Your task to perform on an android device: change alarm snooze length Image 0: 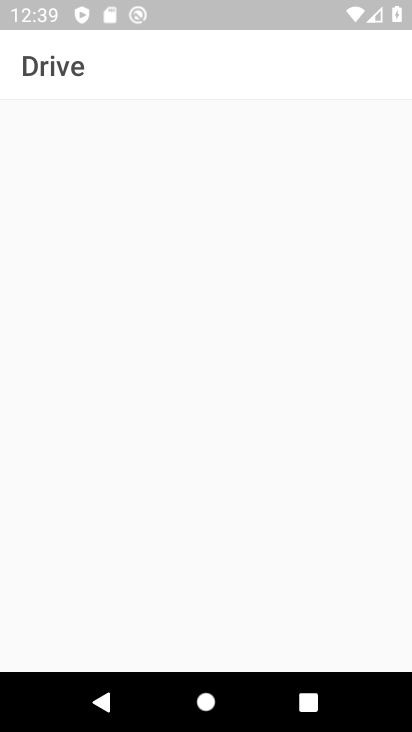
Step 0: press home button
Your task to perform on an android device: change alarm snooze length Image 1: 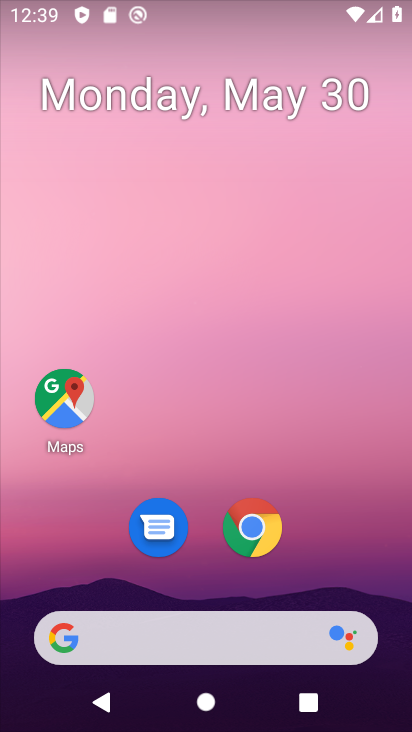
Step 1: drag from (207, 594) to (222, 18)
Your task to perform on an android device: change alarm snooze length Image 2: 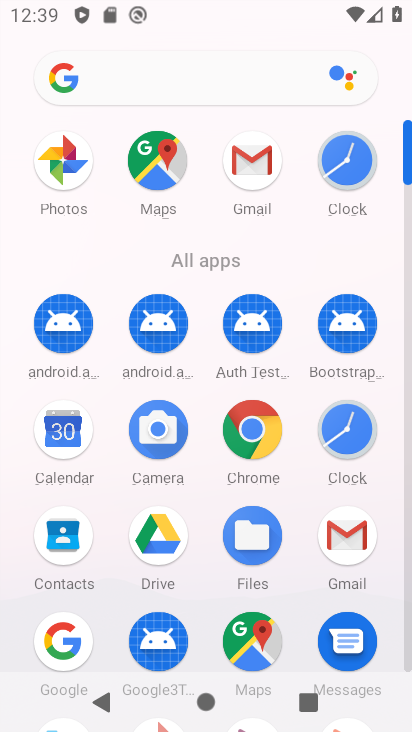
Step 2: click (338, 182)
Your task to perform on an android device: change alarm snooze length Image 3: 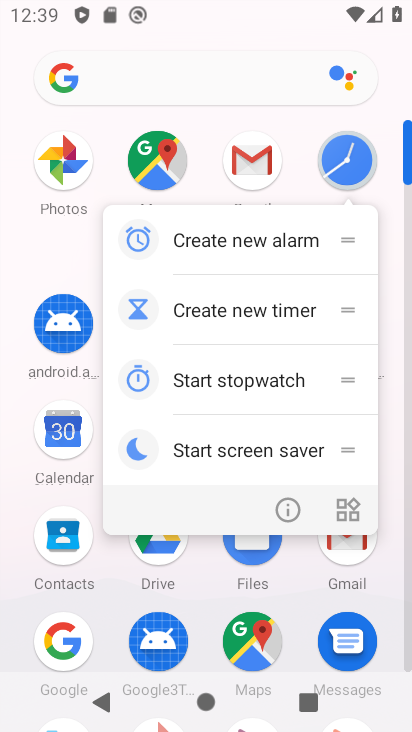
Step 3: click (295, 525)
Your task to perform on an android device: change alarm snooze length Image 4: 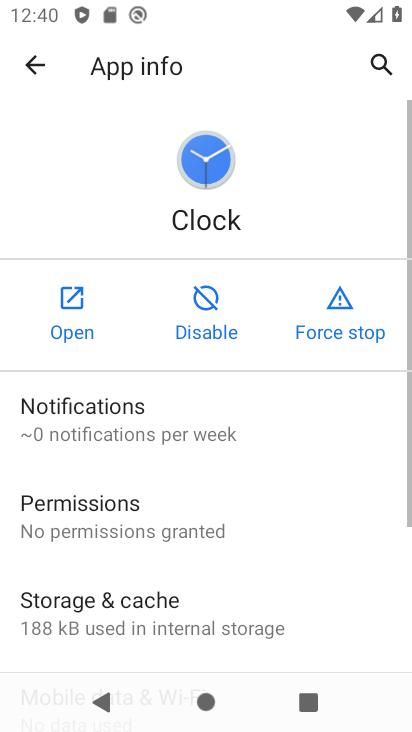
Step 4: click (71, 306)
Your task to perform on an android device: change alarm snooze length Image 5: 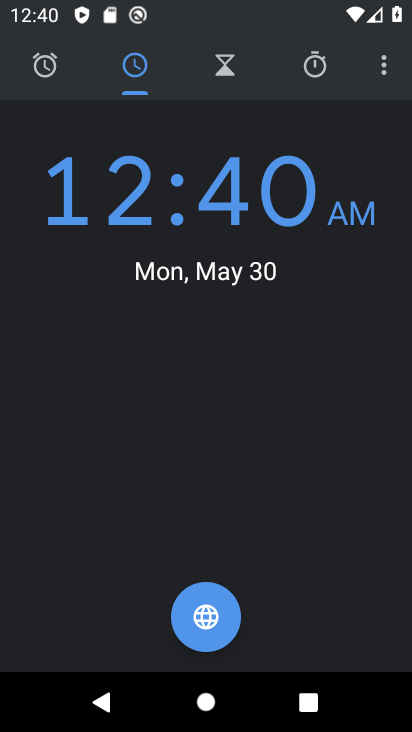
Step 5: click (373, 67)
Your task to perform on an android device: change alarm snooze length Image 6: 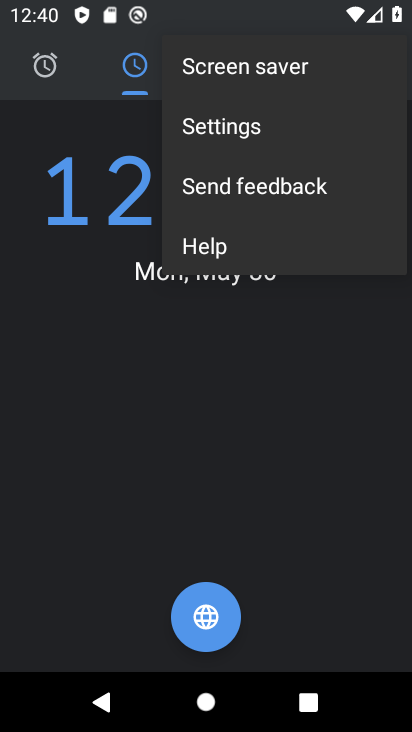
Step 6: click (264, 124)
Your task to perform on an android device: change alarm snooze length Image 7: 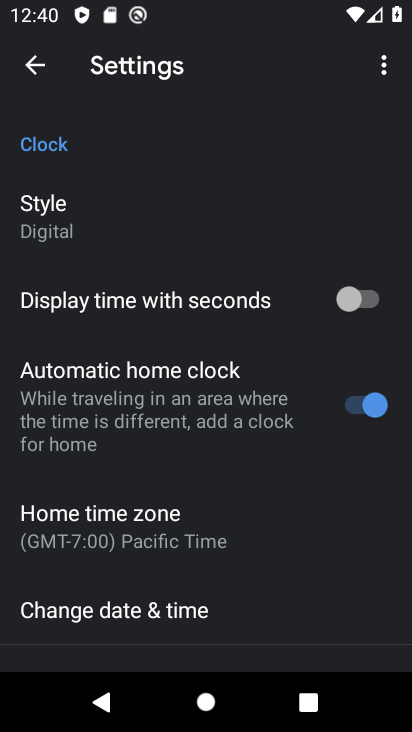
Step 7: drag from (201, 592) to (324, 16)
Your task to perform on an android device: change alarm snooze length Image 8: 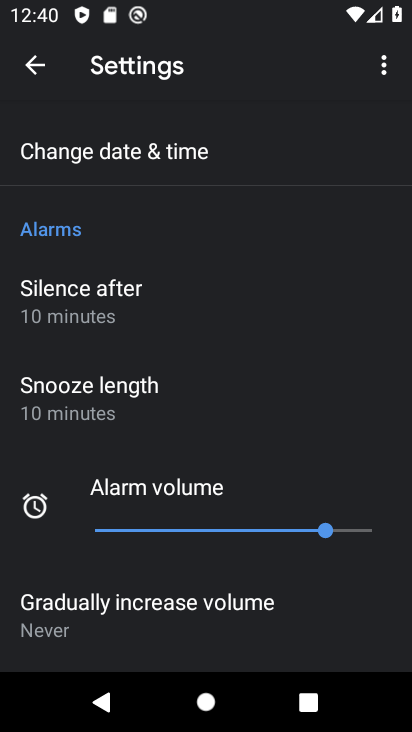
Step 8: drag from (175, 461) to (272, 157)
Your task to perform on an android device: change alarm snooze length Image 9: 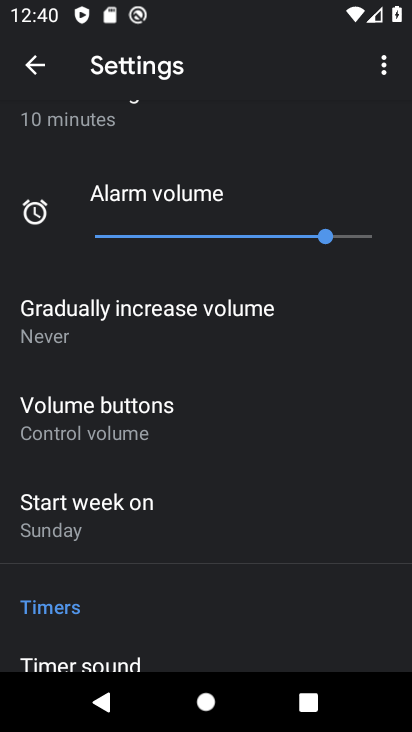
Step 9: drag from (173, 542) to (293, 190)
Your task to perform on an android device: change alarm snooze length Image 10: 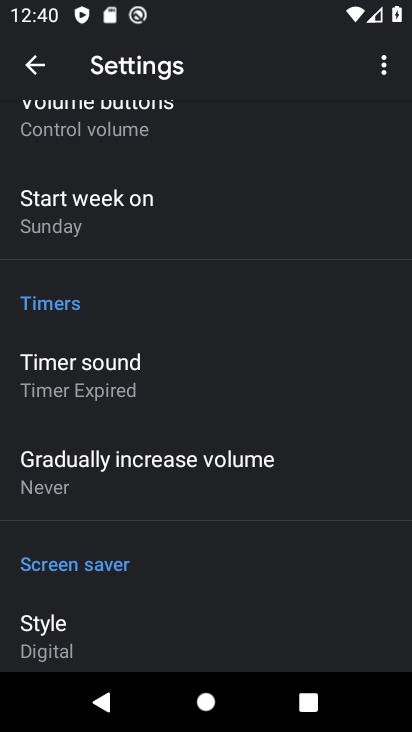
Step 10: drag from (149, 509) to (218, 145)
Your task to perform on an android device: change alarm snooze length Image 11: 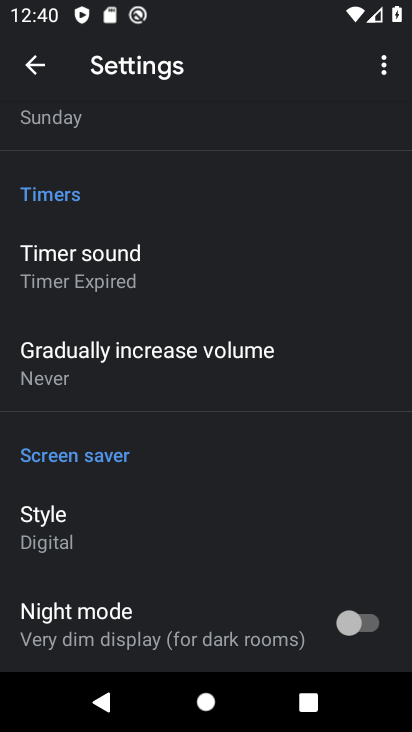
Step 11: drag from (172, 317) to (217, 666)
Your task to perform on an android device: change alarm snooze length Image 12: 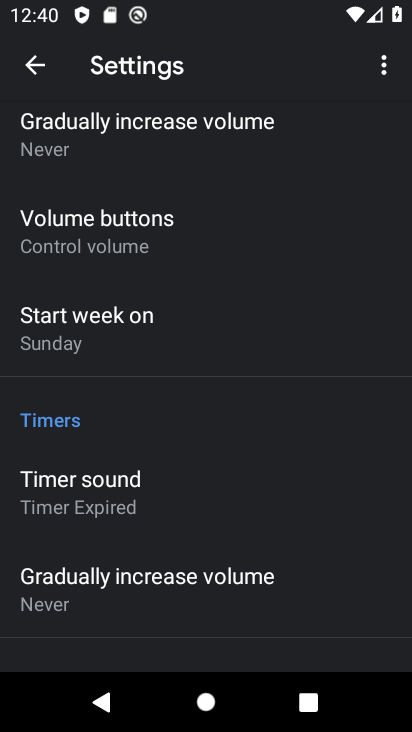
Step 12: drag from (156, 262) to (244, 656)
Your task to perform on an android device: change alarm snooze length Image 13: 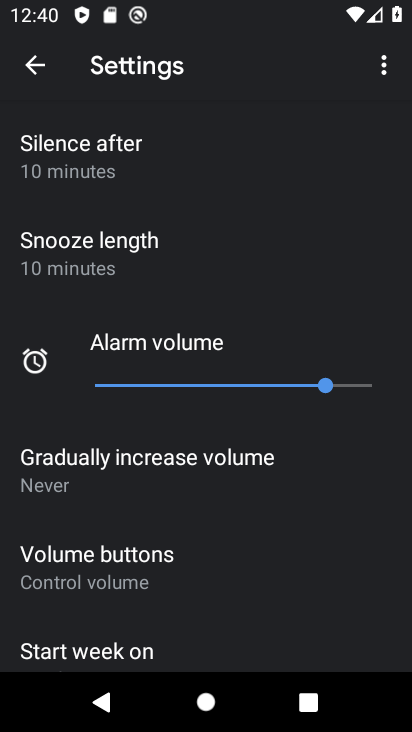
Step 13: click (150, 262)
Your task to perform on an android device: change alarm snooze length Image 14: 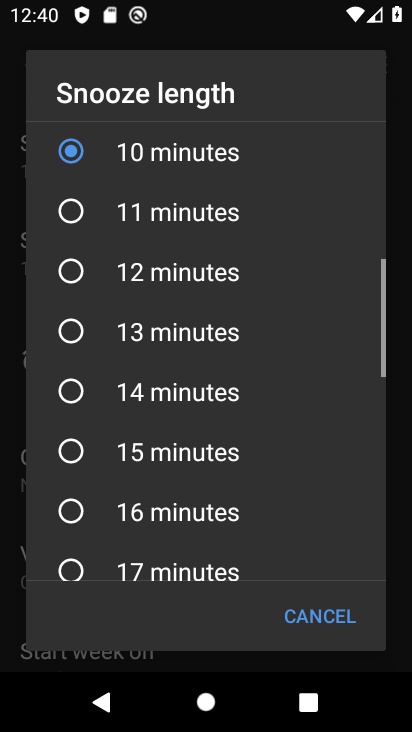
Step 14: click (103, 273)
Your task to perform on an android device: change alarm snooze length Image 15: 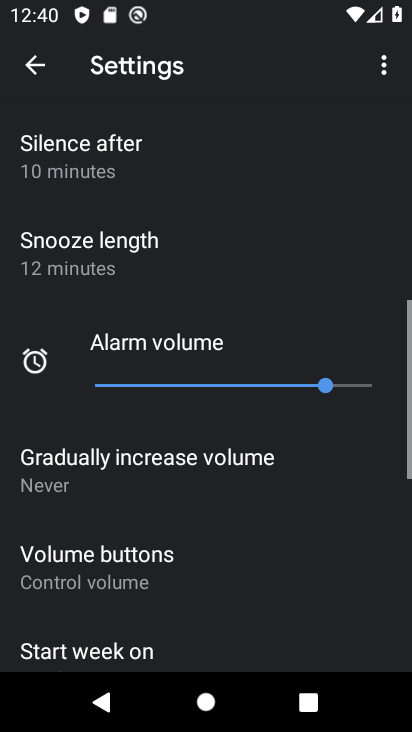
Step 15: task complete